Your task to perform on an android device: Open the Play Movies app and select the watchlist tab. Image 0: 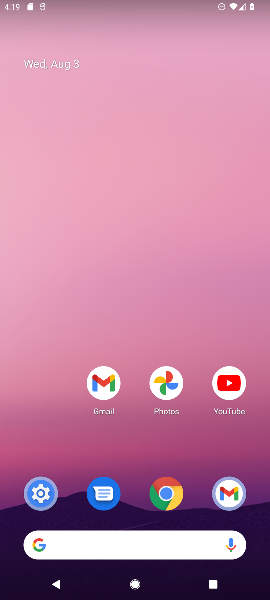
Step 0: press home button
Your task to perform on an android device: Open the Play Movies app and select the watchlist tab. Image 1: 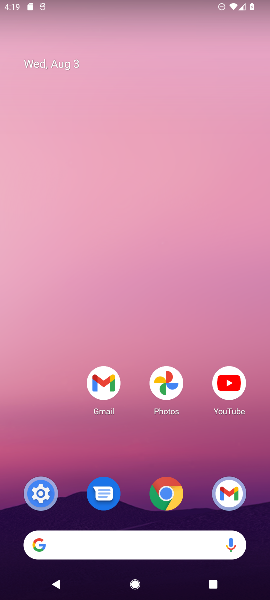
Step 1: task complete